Your task to perform on an android device: Do I have any events tomorrow? Image 0: 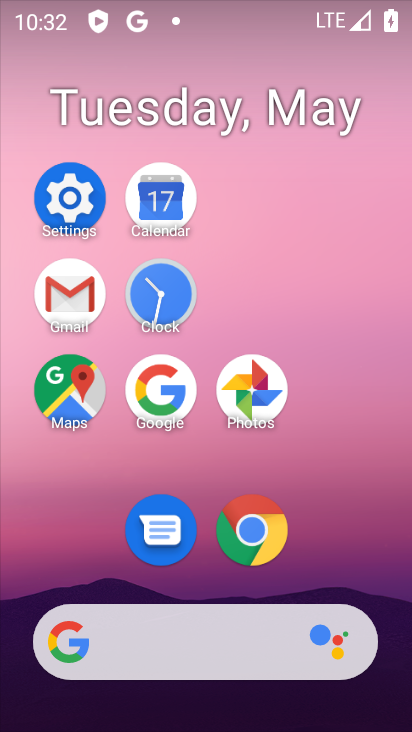
Step 0: click (162, 211)
Your task to perform on an android device: Do I have any events tomorrow? Image 1: 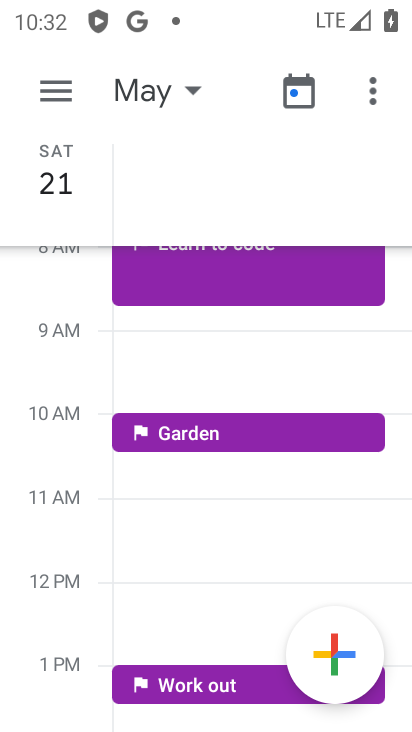
Step 1: click (164, 76)
Your task to perform on an android device: Do I have any events tomorrow? Image 2: 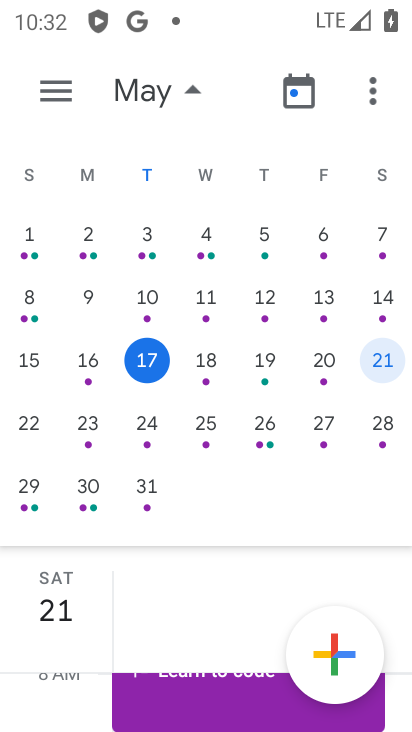
Step 2: click (281, 369)
Your task to perform on an android device: Do I have any events tomorrow? Image 3: 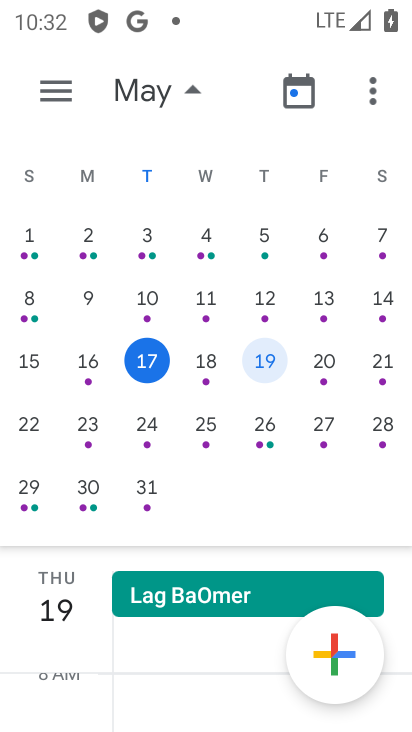
Step 3: click (182, 595)
Your task to perform on an android device: Do I have any events tomorrow? Image 4: 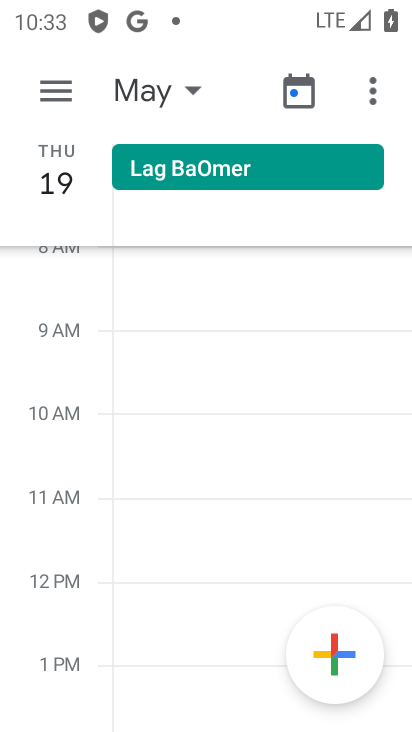
Step 4: task complete